Your task to perform on an android device: Open Google Chrome and open the bookmarks view Image 0: 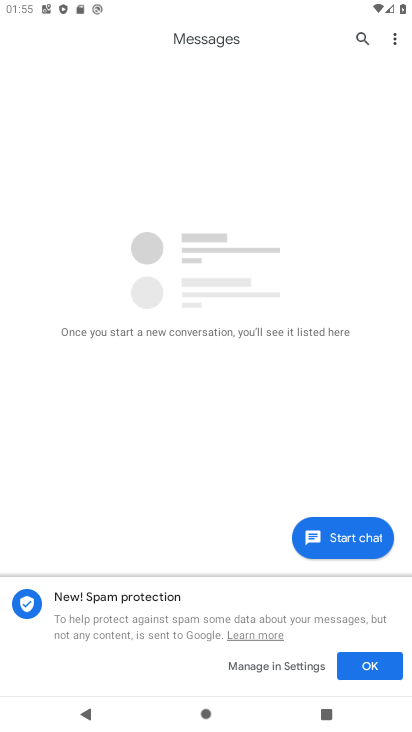
Step 0: press home button
Your task to perform on an android device: Open Google Chrome and open the bookmarks view Image 1: 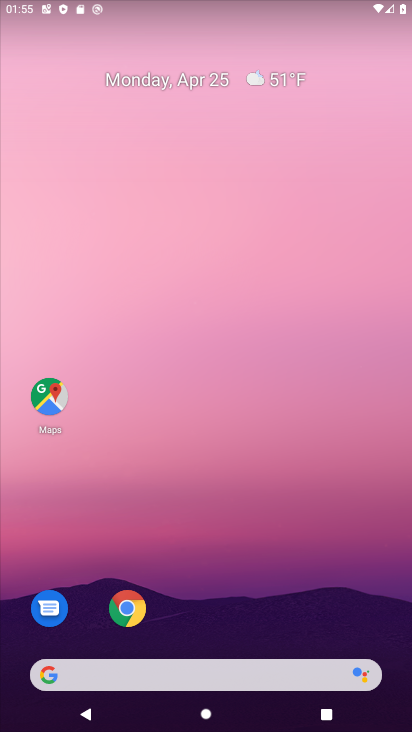
Step 1: click (131, 606)
Your task to perform on an android device: Open Google Chrome and open the bookmarks view Image 2: 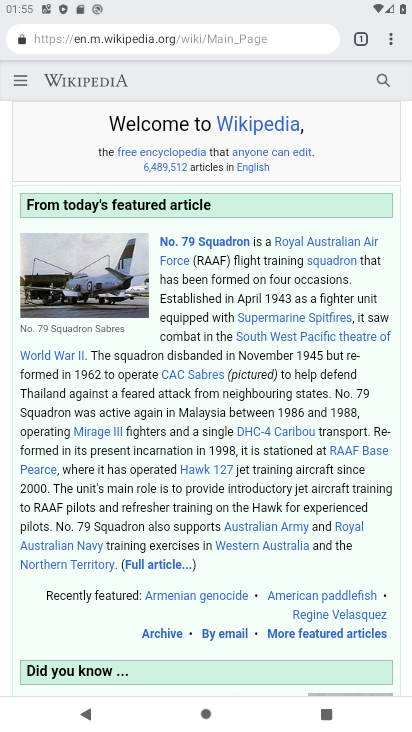
Step 2: click (395, 34)
Your task to perform on an android device: Open Google Chrome and open the bookmarks view Image 3: 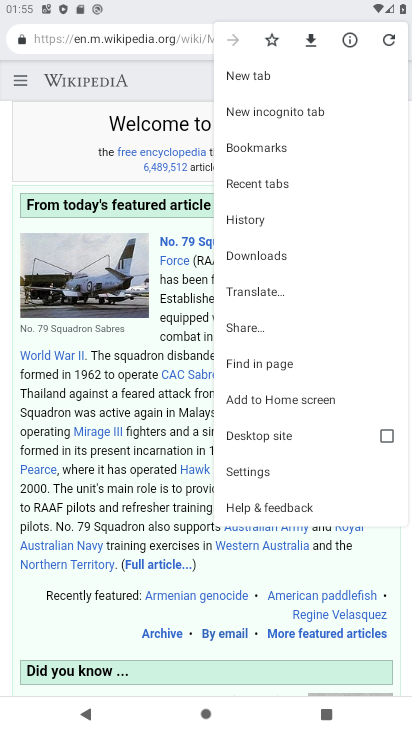
Step 3: click (295, 145)
Your task to perform on an android device: Open Google Chrome and open the bookmarks view Image 4: 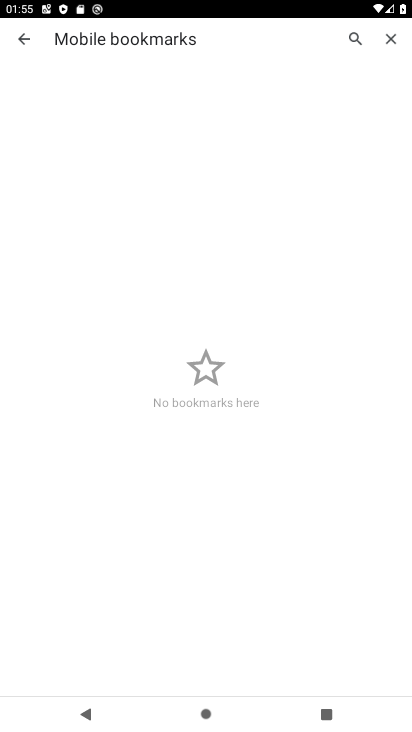
Step 4: task complete